Your task to perform on an android device: Play the last video I watched on Youtube Image 0: 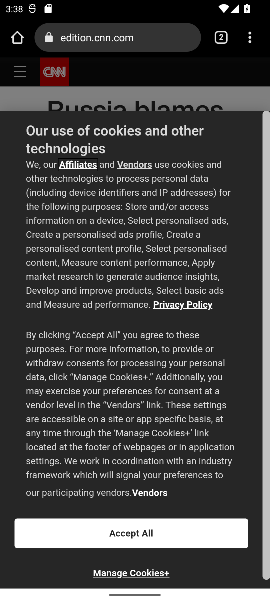
Step 0: press home button
Your task to perform on an android device: Play the last video I watched on Youtube Image 1: 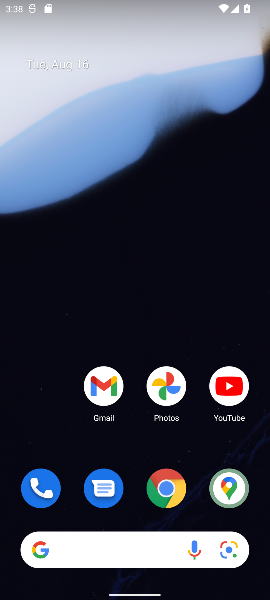
Step 1: drag from (137, 325) to (139, 46)
Your task to perform on an android device: Play the last video I watched on Youtube Image 2: 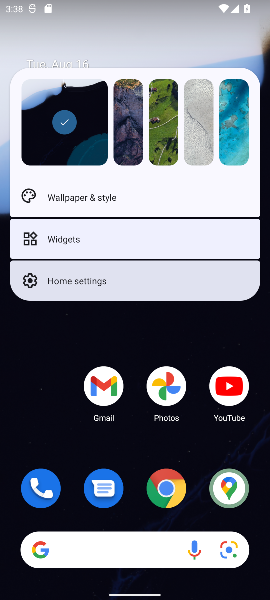
Step 2: click (122, 352)
Your task to perform on an android device: Play the last video I watched on Youtube Image 3: 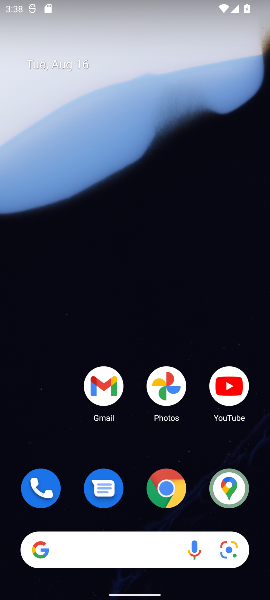
Step 3: drag from (122, 352) to (135, 62)
Your task to perform on an android device: Play the last video I watched on Youtube Image 4: 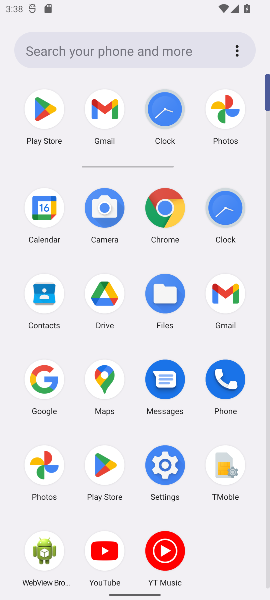
Step 4: click (108, 557)
Your task to perform on an android device: Play the last video I watched on Youtube Image 5: 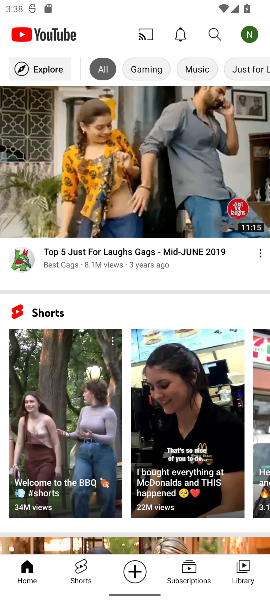
Step 5: task complete